Your task to perform on an android device: turn off sleep mode Image 0: 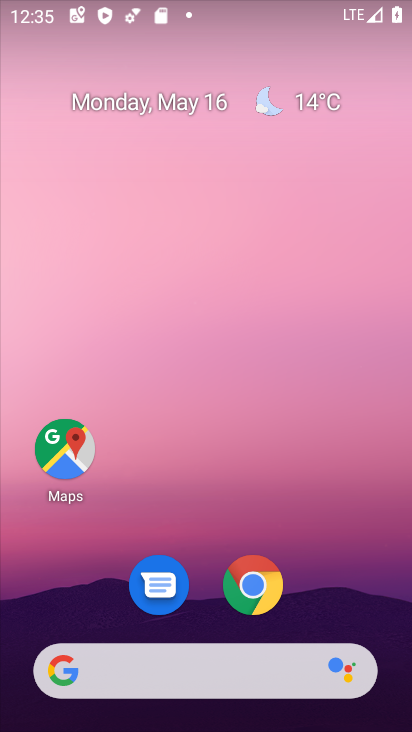
Step 0: drag from (322, 560) to (299, 11)
Your task to perform on an android device: turn off sleep mode Image 1: 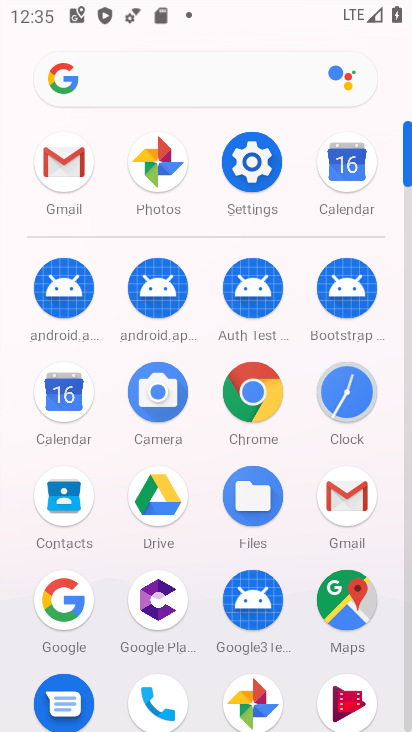
Step 1: click (243, 158)
Your task to perform on an android device: turn off sleep mode Image 2: 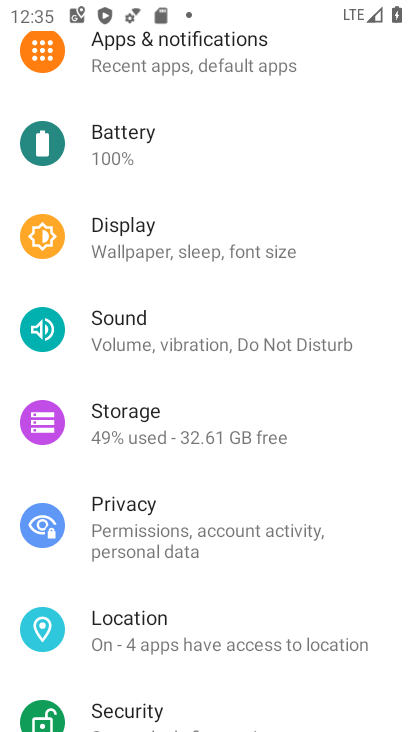
Step 2: click (232, 239)
Your task to perform on an android device: turn off sleep mode Image 3: 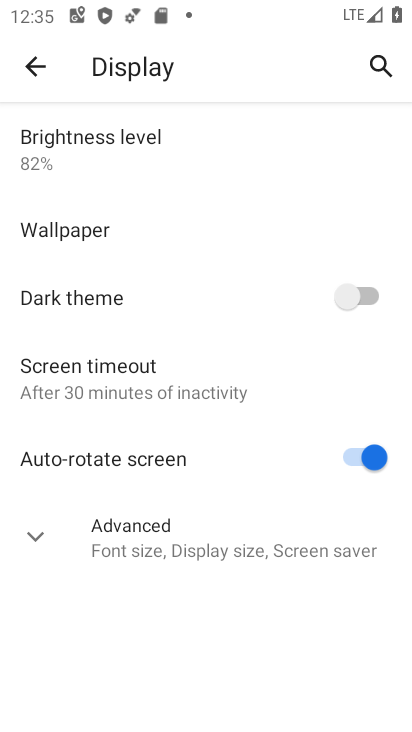
Step 3: click (39, 538)
Your task to perform on an android device: turn off sleep mode Image 4: 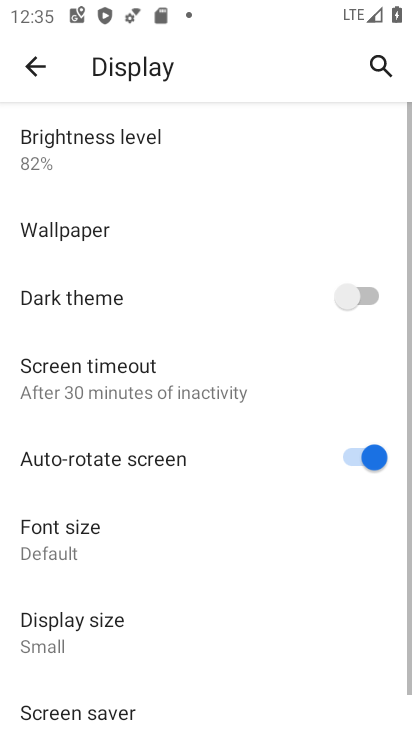
Step 4: task complete